Your task to perform on an android device: Do I have any events tomorrow? Image 0: 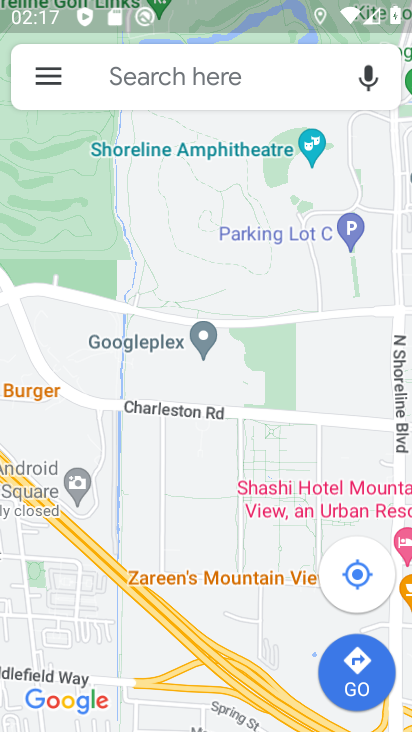
Step 0: press home button
Your task to perform on an android device: Do I have any events tomorrow? Image 1: 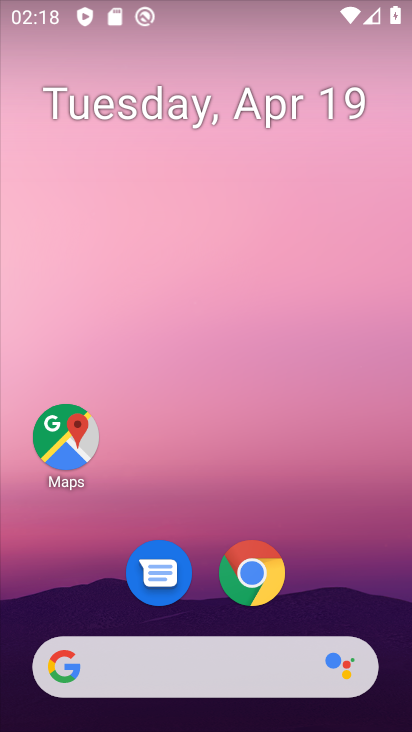
Step 1: drag from (378, 615) to (385, 2)
Your task to perform on an android device: Do I have any events tomorrow? Image 2: 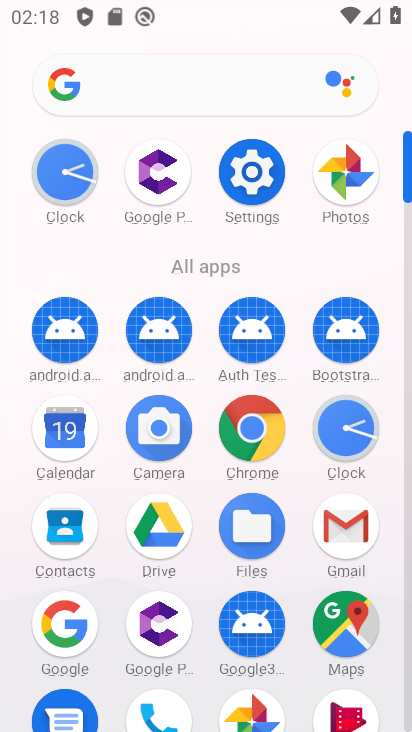
Step 2: click (66, 437)
Your task to perform on an android device: Do I have any events tomorrow? Image 3: 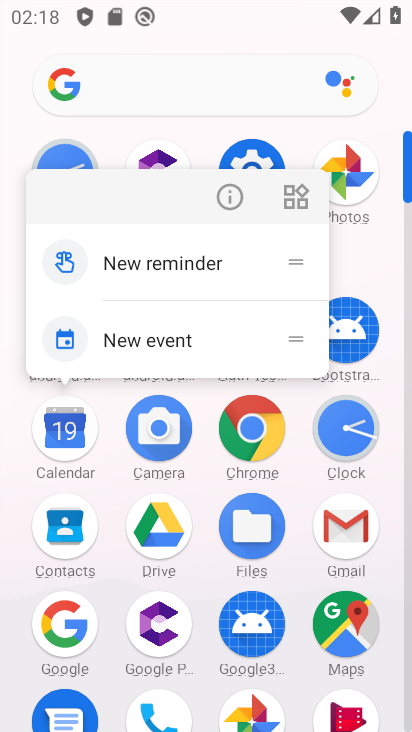
Step 3: click (55, 442)
Your task to perform on an android device: Do I have any events tomorrow? Image 4: 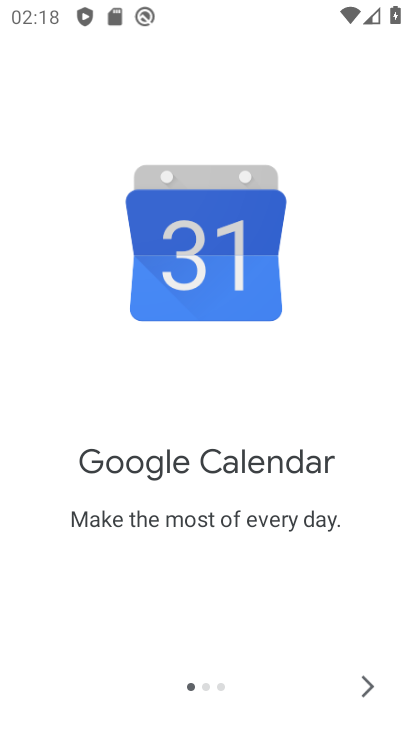
Step 4: click (372, 688)
Your task to perform on an android device: Do I have any events tomorrow? Image 5: 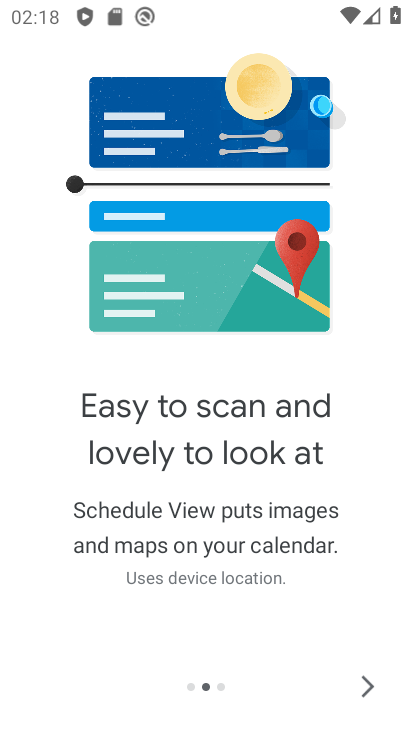
Step 5: click (372, 688)
Your task to perform on an android device: Do I have any events tomorrow? Image 6: 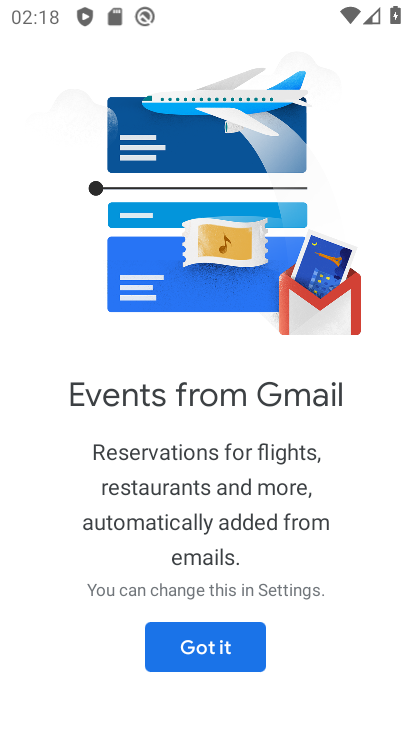
Step 6: click (204, 641)
Your task to perform on an android device: Do I have any events tomorrow? Image 7: 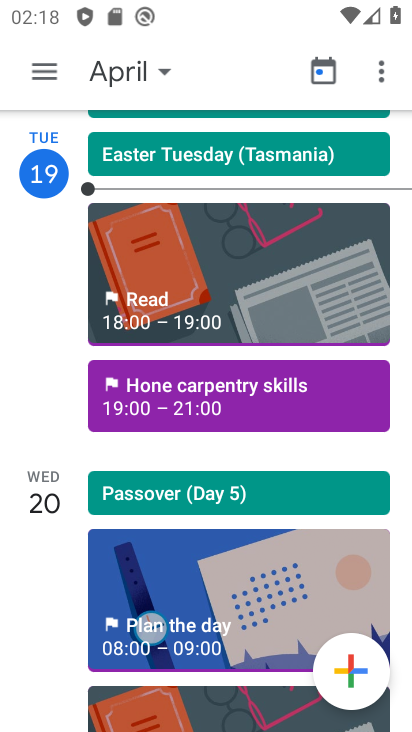
Step 7: click (166, 74)
Your task to perform on an android device: Do I have any events tomorrow? Image 8: 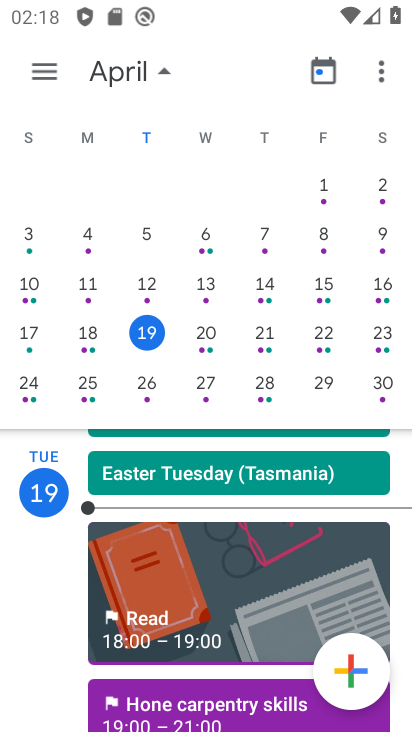
Step 8: click (208, 336)
Your task to perform on an android device: Do I have any events tomorrow? Image 9: 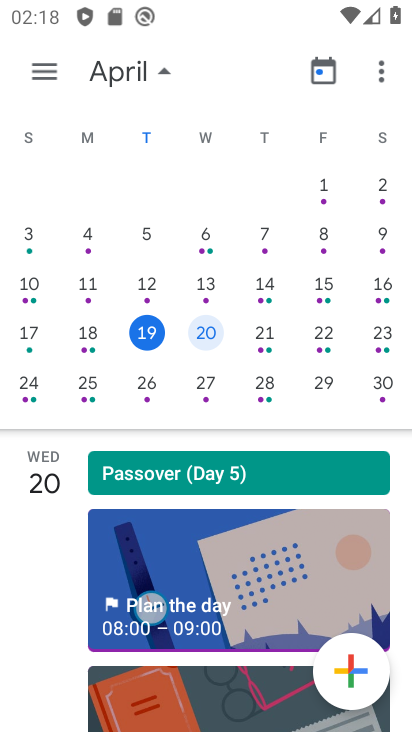
Step 9: drag from (201, 560) to (183, 295)
Your task to perform on an android device: Do I have any events tomorrow? Image 10: 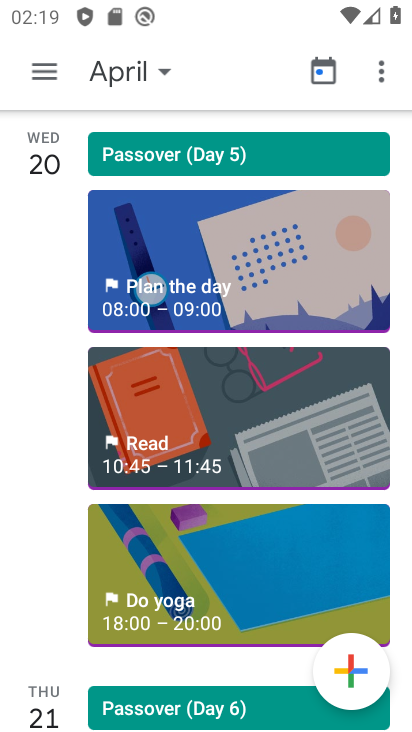
Step 10: click (208, 580)
Your task to perform on an android device: Do I have any events tomorrow? Image 11: 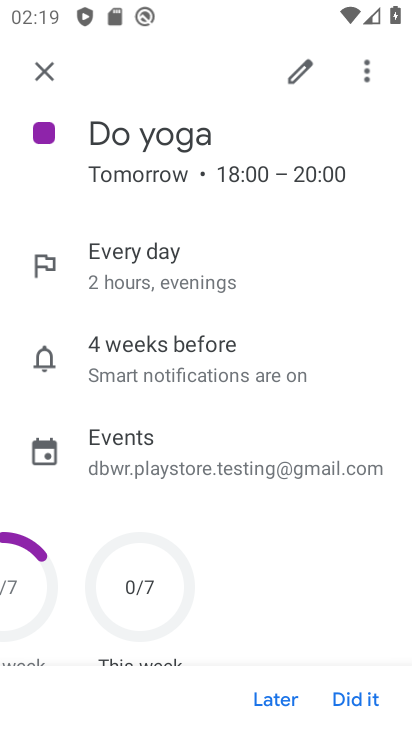
Step 11: task complete